Your task to perform on an android device: delete a single message in the gmail app Image 0: 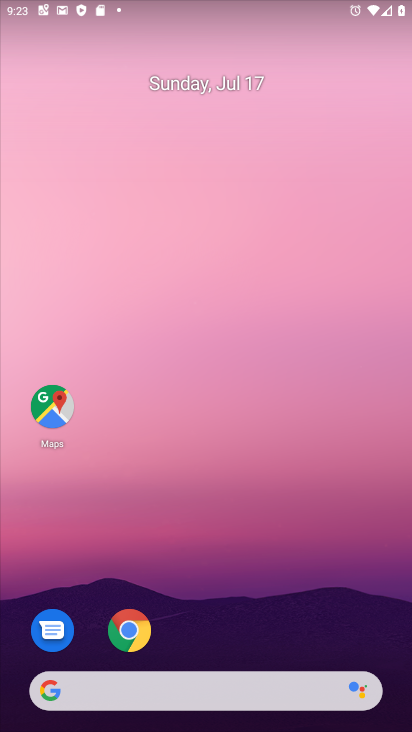
Step 0: drag from (352, 620) to (354, 103)
Your task to perform on an android device: delete a single message in the gmail app Image 1: 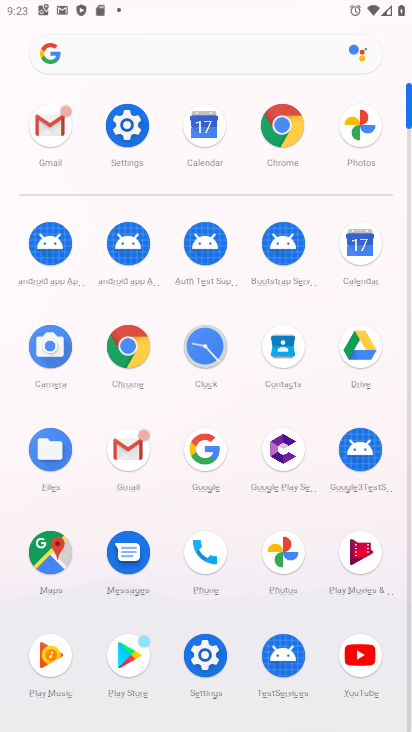
Step 1: click (141, 444)
Your task to perform on an android device: delete a single message in the gmail app Image 2: 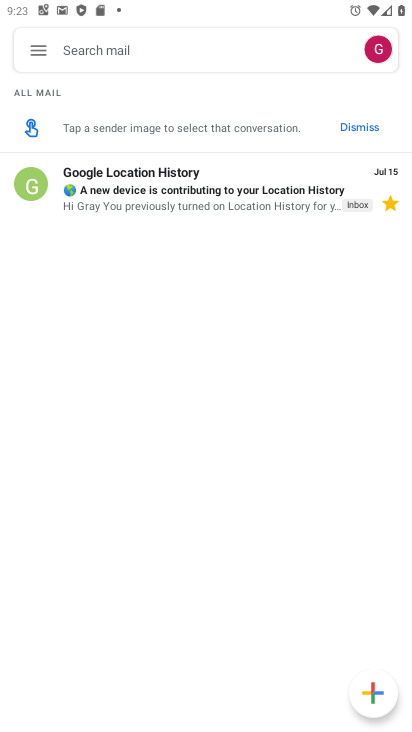
Step 2: click (256, 191)
Your task to perform on an android device: delete a single message in the gmail app Image 3: 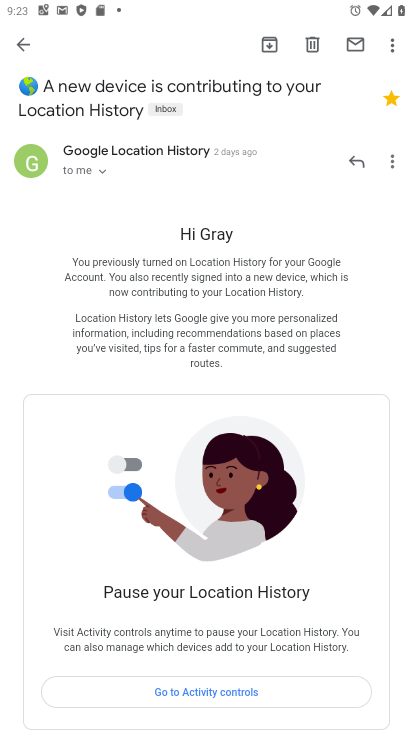
Step 3: click (311, 39)
Your task to perform on an android device: delete a single message in the gmail app Image 4: 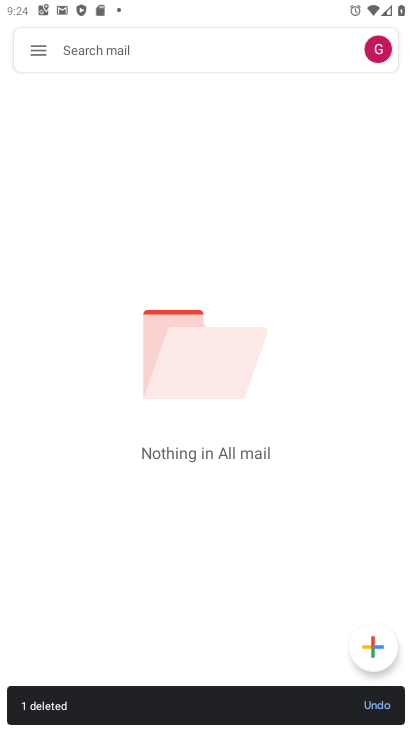
Step 4: task complete